Your task to perform on an android device: turn off priority inbox in the gmail app Image 0: 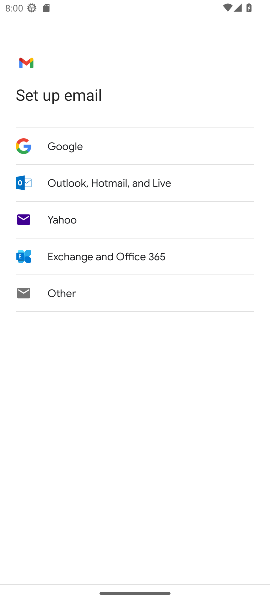
Step 0: press home button
Your task to perform on an android device: turn off priority inbox in the gmail app Image 1: 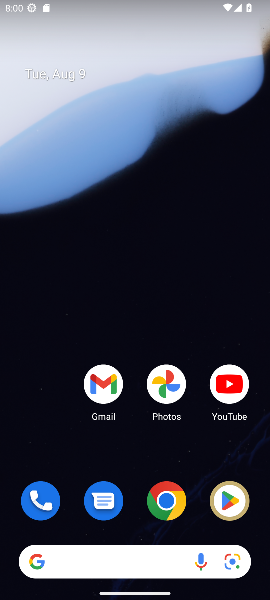
Step 1: click (100, 381)
Your task to perform on an android device: turn off priority inbox in the gmail app Image 2: 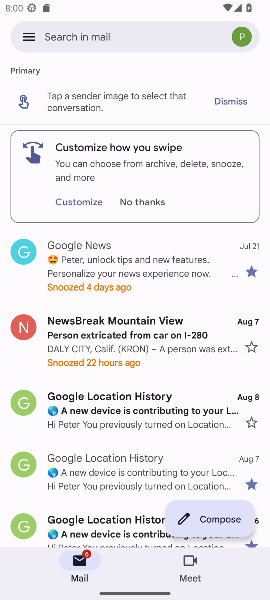
Step 2: click (31, 36)
Your task to perform on an android device: turn off priority inbox in the gmail app Image 3: 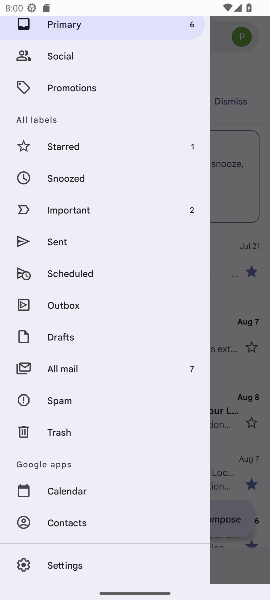
Step 3: click (64, 556)
Your task to perform on an android device: turn off priority inbox in the gmail app Image 4: 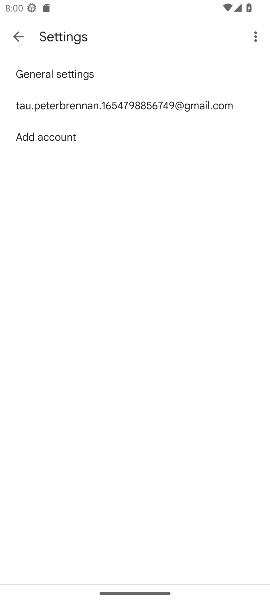
Step 4: click (183, 106)
Your task to perform on an android device: turn off priority inbox in the gmail app Image 5: 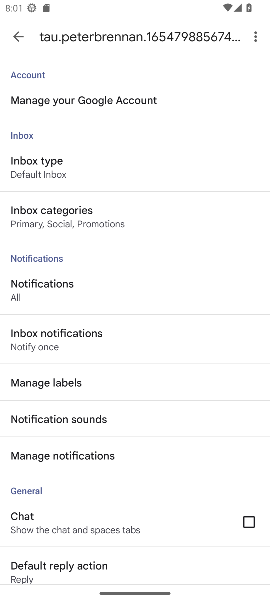
Step 5: click (47, 172)
Your task to perform on an android device: turn off priority inbox in the gmail app Image 6: 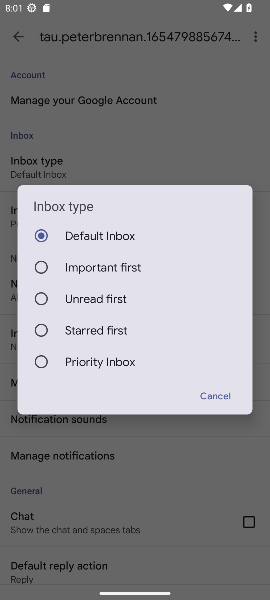
Step 6: click (81, 235)
Your task to perform on an android device: turn off priority inbox in the gmail app Image 7: 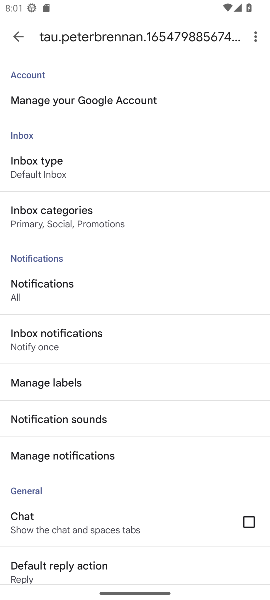
Step 7: task complete